Your task to perform on an android device: find snoozed emails in the gmail app Image 0: 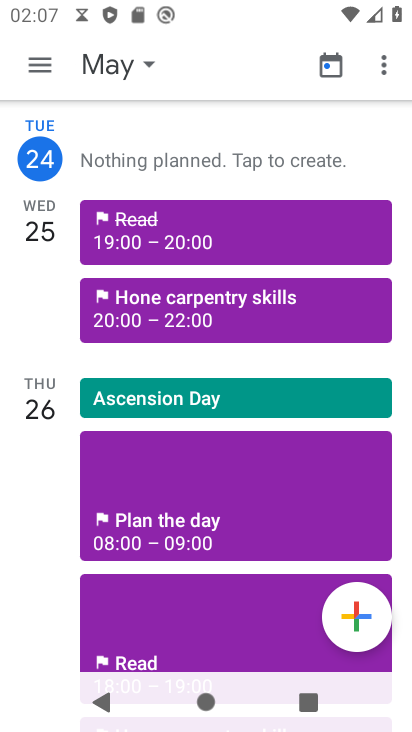
Step 0: press home button
Your task to perform on an android device: find snoozed emails in the gmail app Image 1: 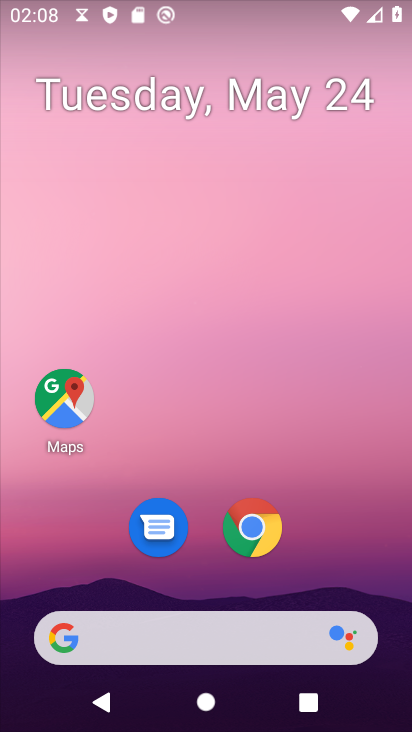
Step 1: drag from (194, 636) to (263, 132)
Your task to perform on an android device: find snoozed emails in the gmail app Image 2: 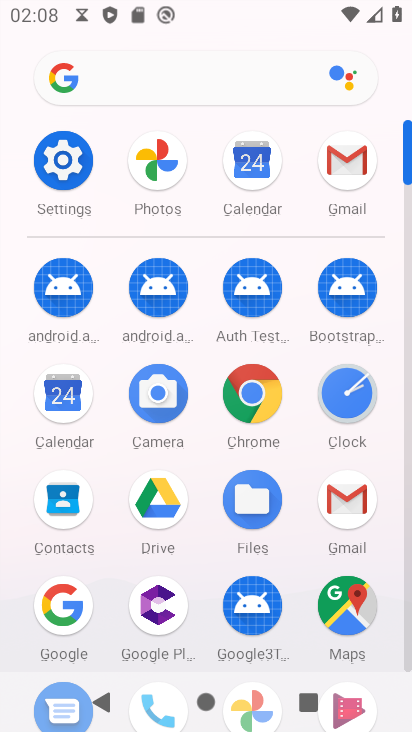
Step 2: click (348, 171)
Your task to perform on an android device: find snoozed emails in the gmail app Image 3: 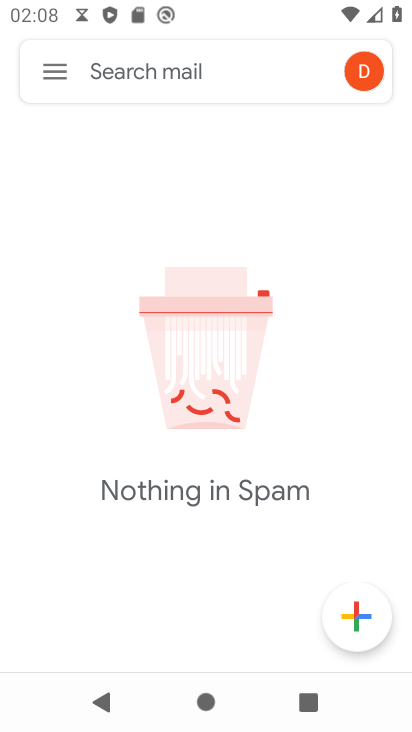
Step 3: click (61, 74)
Your task to perform on an android device: find snoozed emails in the gmail app Image 4: 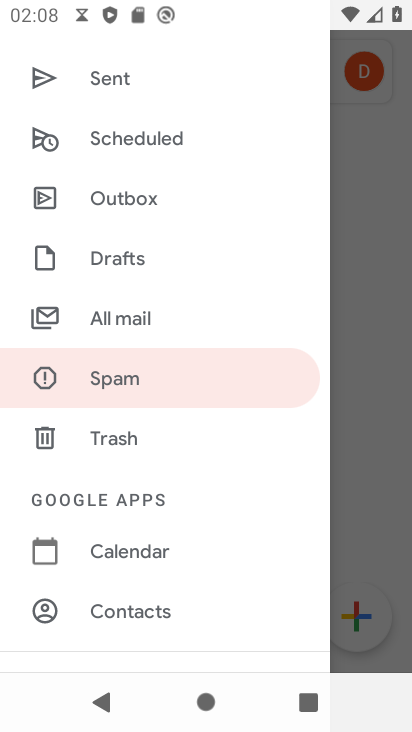
Step 4: drag from (219, 148) to (190, 430)
Your task to perform on an android device: find snoozed emails in the gmail app Image 5: 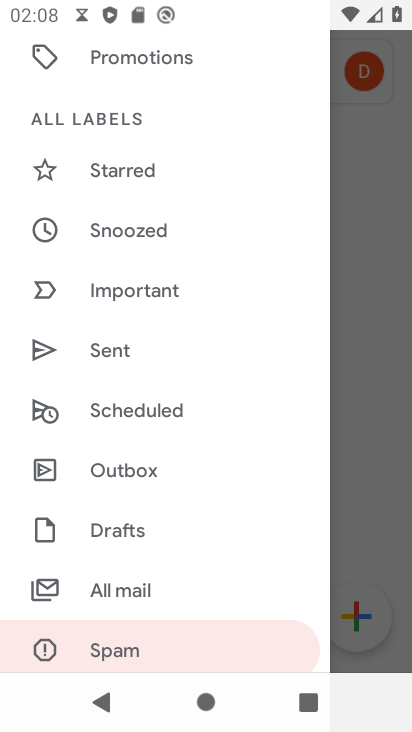
Step 5: click (136, 238)
Your task to perform on an android device: find snoozed emails in the gmail app Image 6: 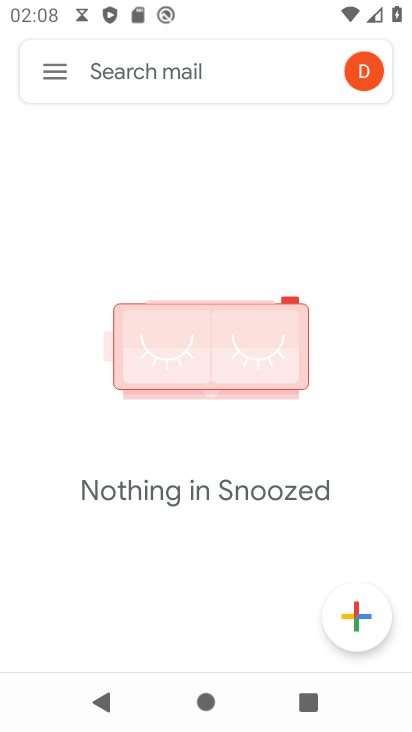
Step 6: task complete